Your task to perform on an android device: toggle pop-ups in chrome Image 0: 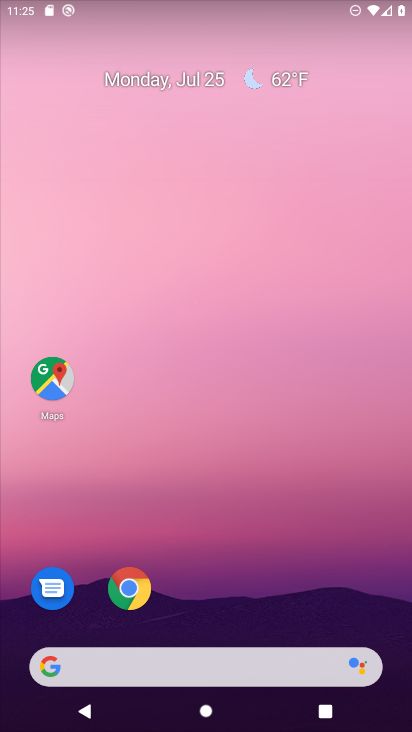
Step 0: click (126, 589)
Your task to perform on an android device: toggle pop-ups in chrome Image 1: 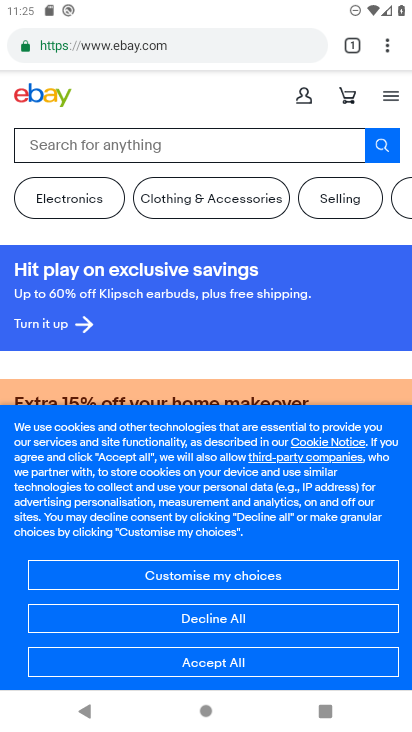
Step 1: click (387, 45)
Your task to perform on an android device: toggle pop-ups in chrome Image 2: 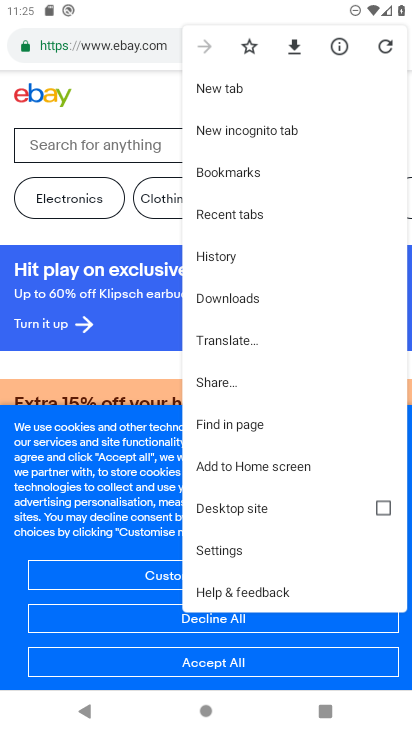
Step 2: click (228, 548)
Your task to perform on an android device: toggle pop-ups in chrome Image 3: 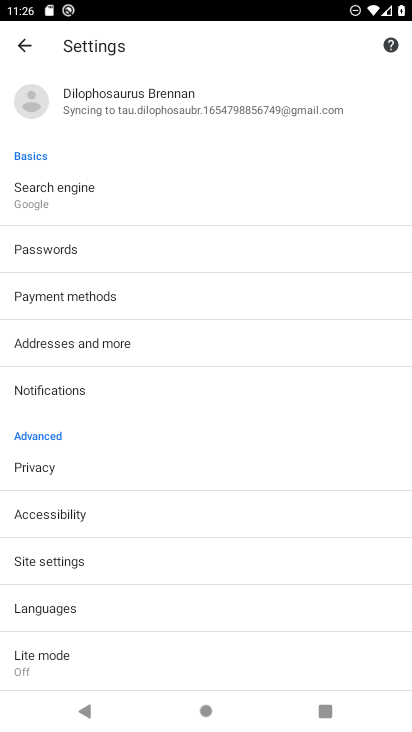
Step 3: click (70, 569)
Your task to perform on an android device: toggle pop-ups in chrome Image 4: 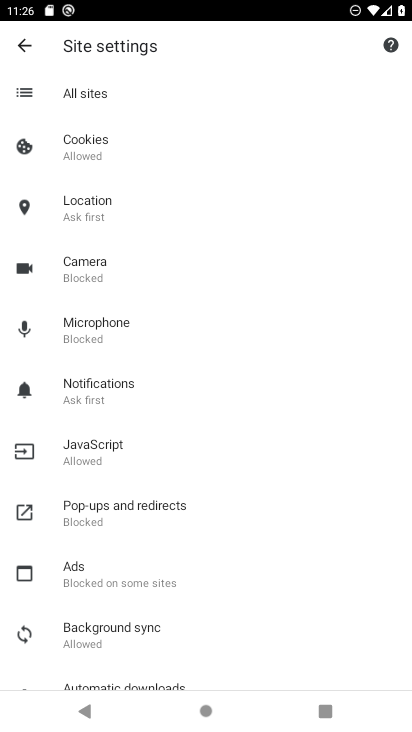
Step 4: click (116, 511)
Your task to perform on an android device: toggle pop-ups in chrome Image 5: 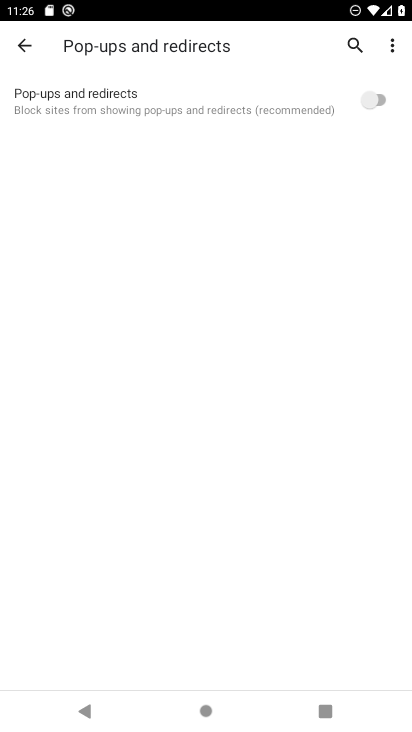
Step 5: click (372, 104)
Your task to perform on an android device: toggle pop-ups in chrome Image 6: 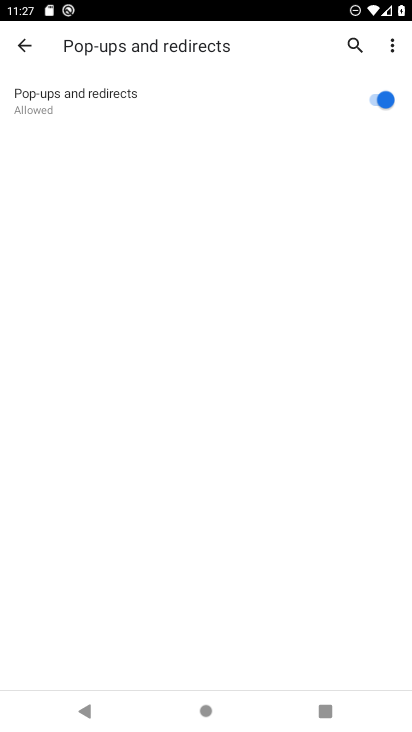
Step 6: task complete